Your task to perform on an android device: Open Chrome and go to the settings page Image 0: 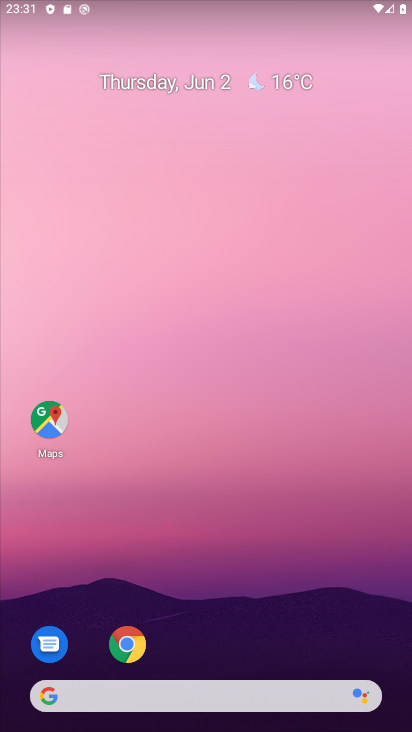
Step 0: drag from (205, 661) to (250, 247)
Your task to perform on an android device: Open Chrome and go to the settings page Image 1: 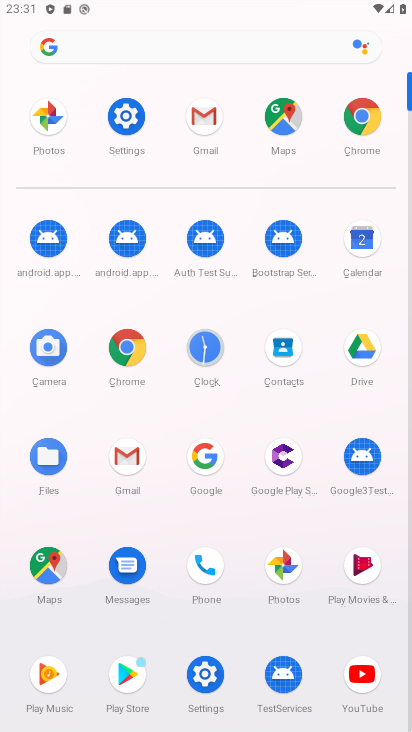
Step 1: click (132, 345)
Your task to perform on an android device: Open Chrome and go to the settings page Image 2: 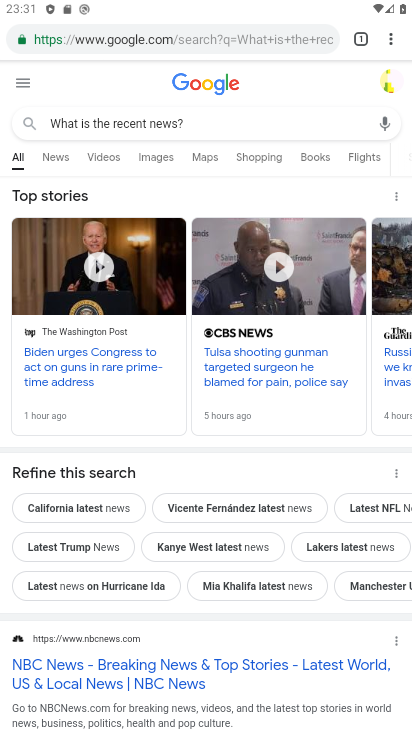
Step 2: click (392, 34)
Your task to perform on an android device: Open Chrome and go to the settings page Image 3: 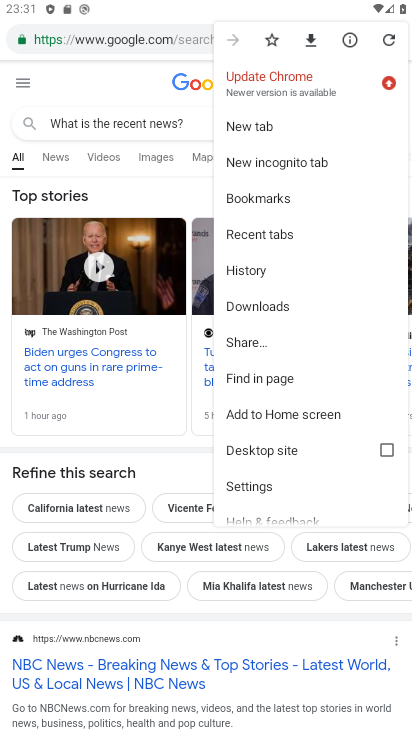
Step 3: click (262, 484)
Your task to perform on an android device: Open Chrome and go to the settings page Image 4: 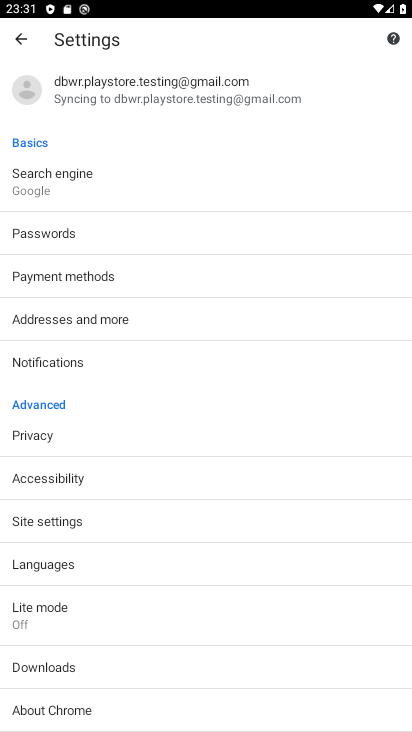
Step 4: task complete